Your task to perform on an android device: toggle data saver in the chrome app Image 0: 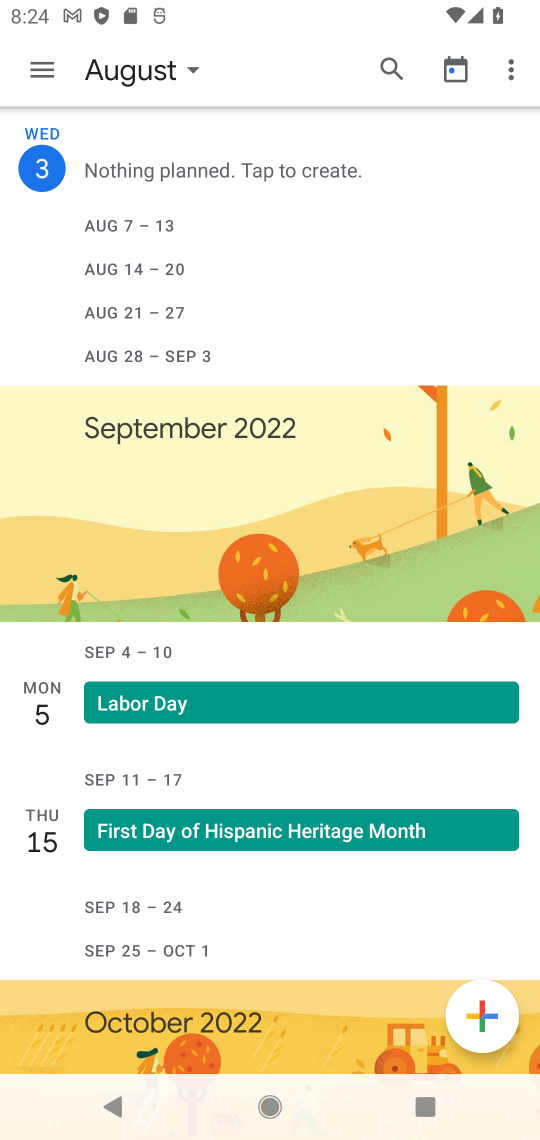
Step 0: press home button
Your task to perform on an android device: toggle data saver in the chrome app Image 1: 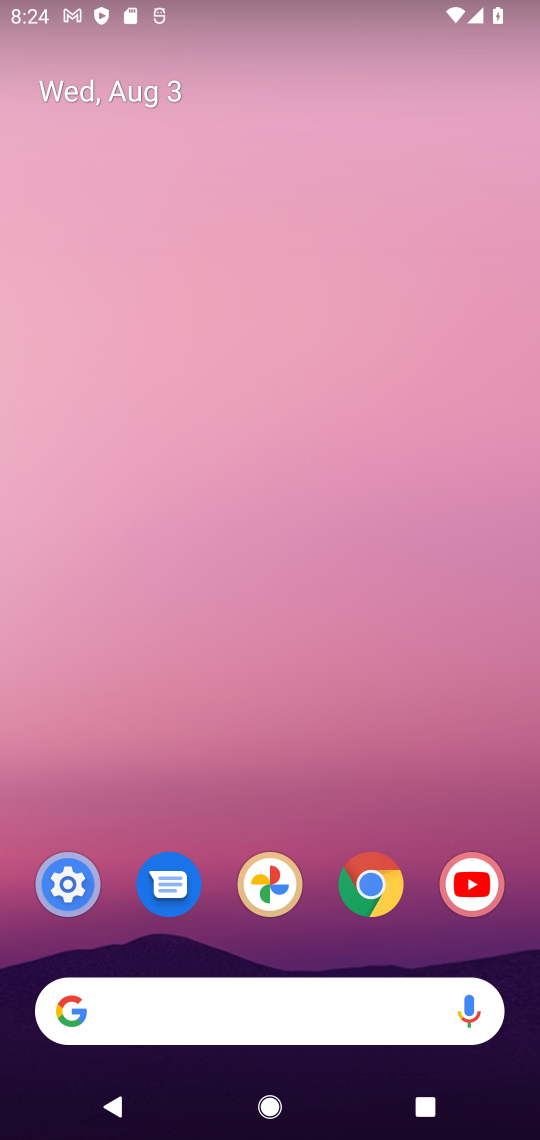
Step 1: click (367, 875)
Your task to perform on an android device: toggle data saver in the chrome app Image 2: 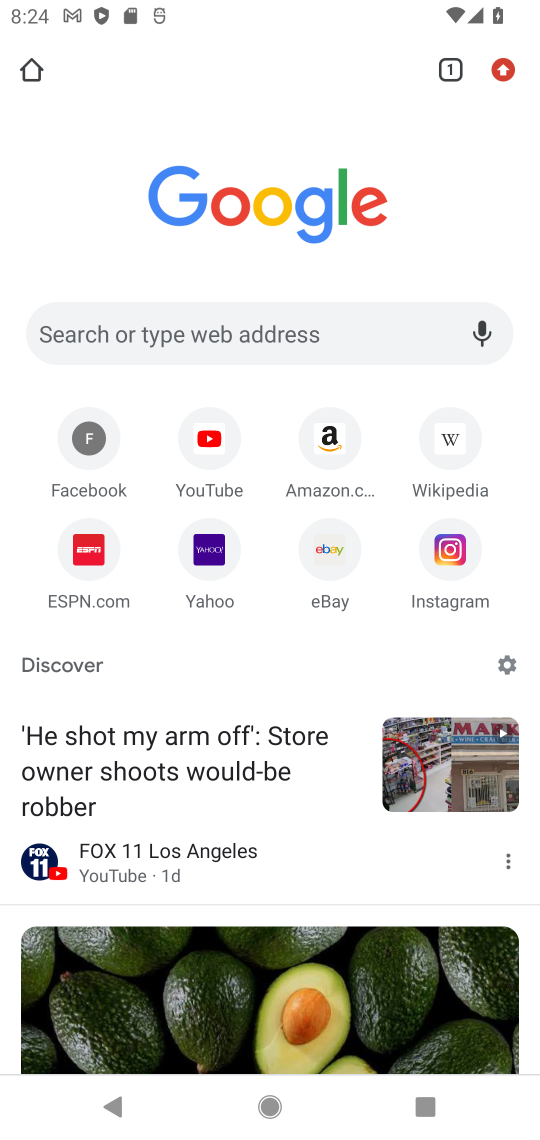
Step 2: click (457, 67)
Your task to perform on an android device: toggle data saver in the chrome app Image 3: 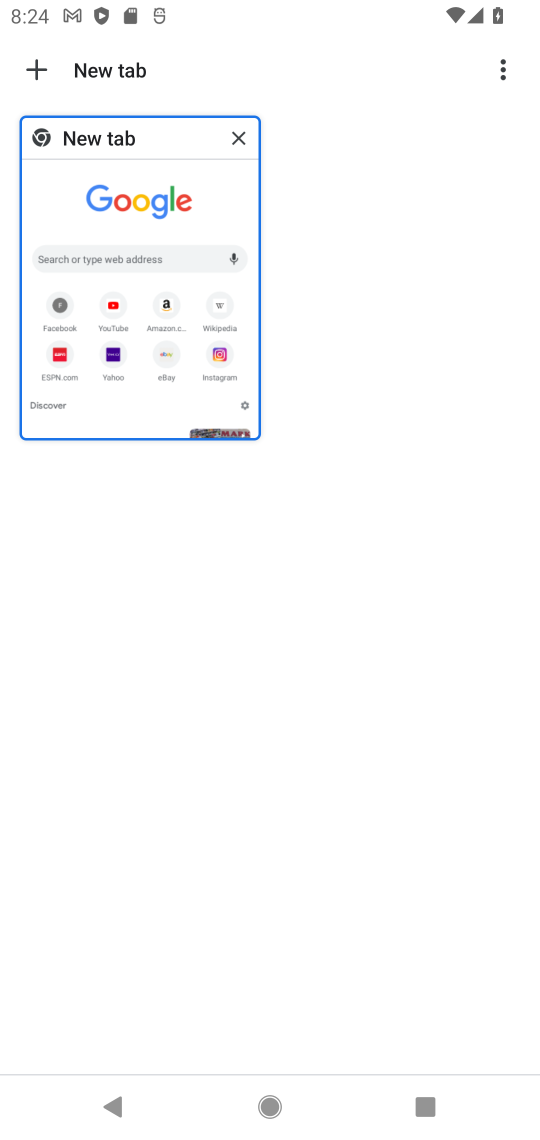
Step 3: click (506, 68)
Your task to perform on an android device: toggle data saver in the chrome app Image 4: 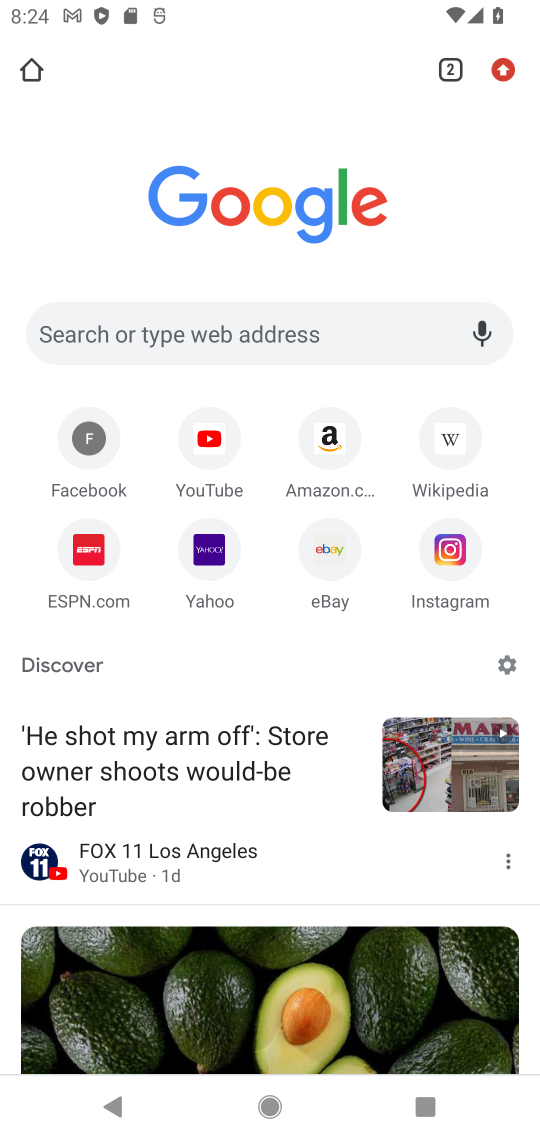
Step 4: task complete